Your task to perform on an android device: stop showing notifications on the lock screen Image 0: 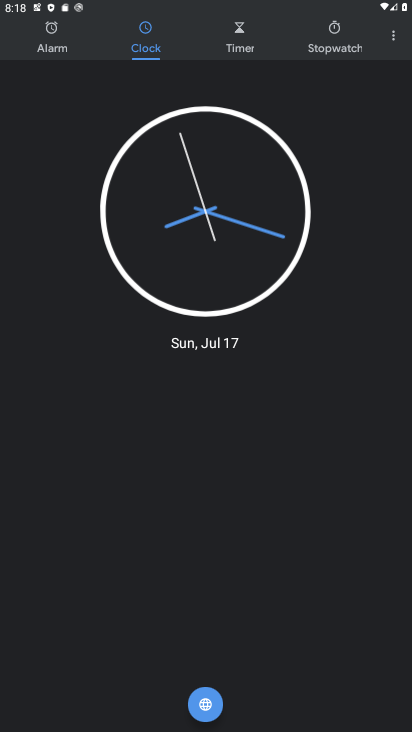
Step 0: press home button
Your task to perform on an android device: stop showing notifications on the lock screen Image 1: 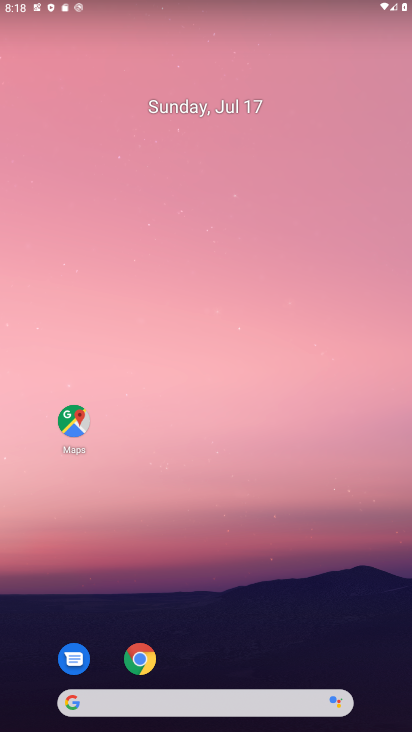
Step 1: drag from (199, 655) to (209, 224)
Your task to perform on an android device: stop showing notifications on the lock screen Image 2: 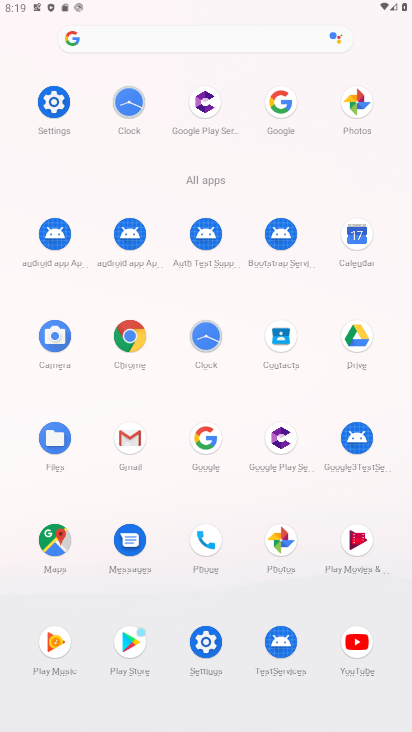
Step 2: click (54, 86)
Your task to perform on an android device: stop showing notifications on the lock screen Image 3: 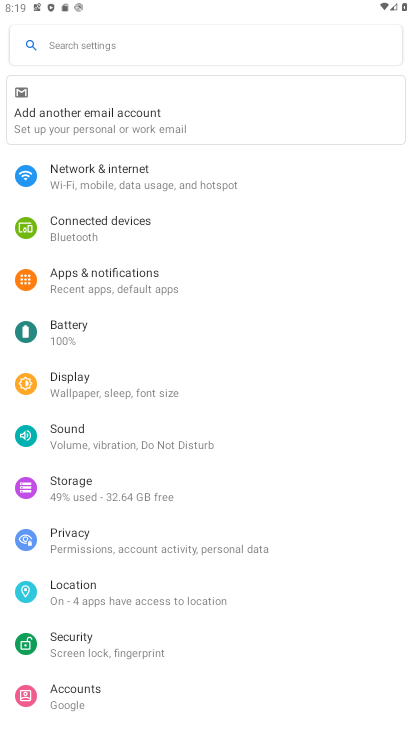
Step 3: click (184, 284)
Your task to perform on an android device: stop showing notifications on the lock screen Image 4: 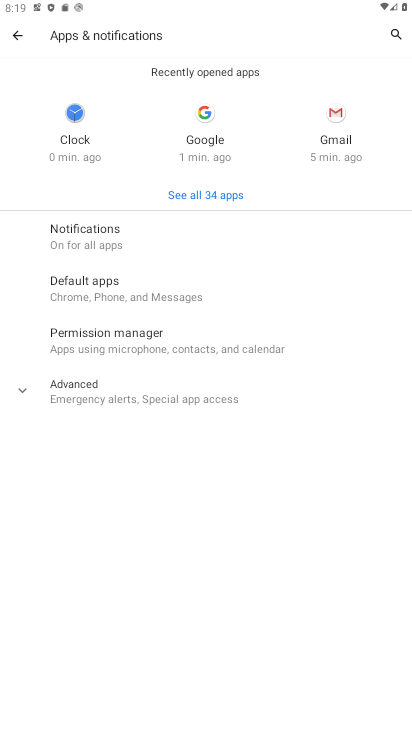
Step 4: click (107, 243)
Your task to perform on an android device: stop showing notifications on the lock screen Image 5: 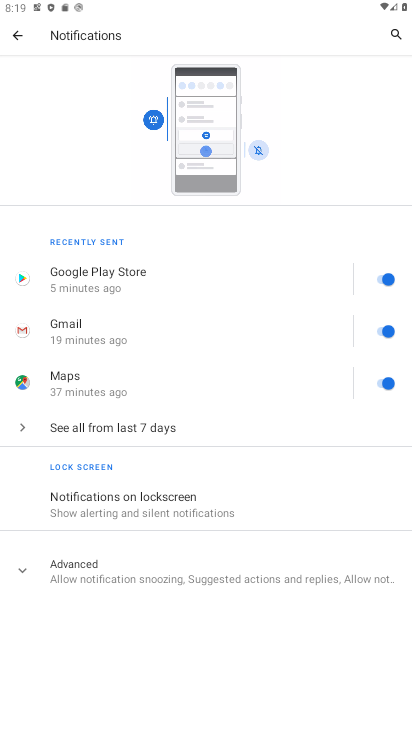
Step 5: click (140, 509)
Your task to perform on an android device: stop showing notifications on the lock screen Image 6: 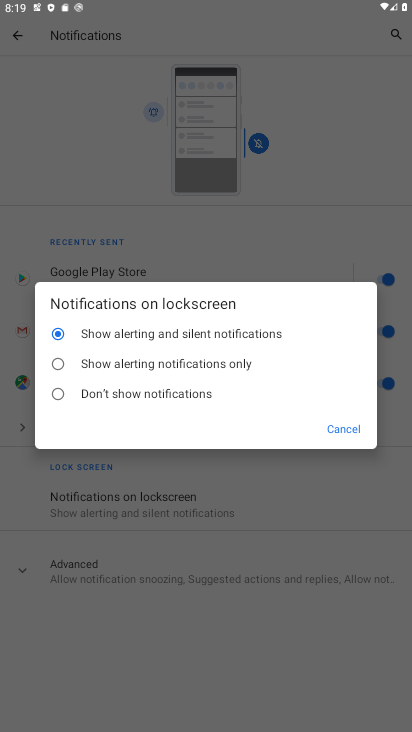
Step 6: click (122, 401)
Your task to perform on an android device: stop showing notifications on the lock screen Image 7: 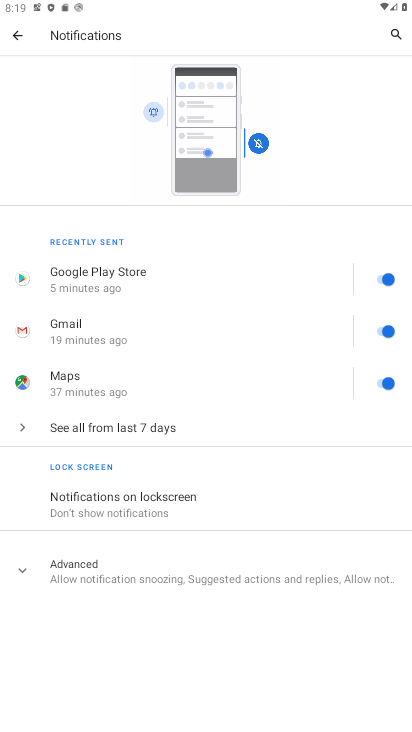
Step 7: task complete